Your task to perform on an android device: check android version Image 0: 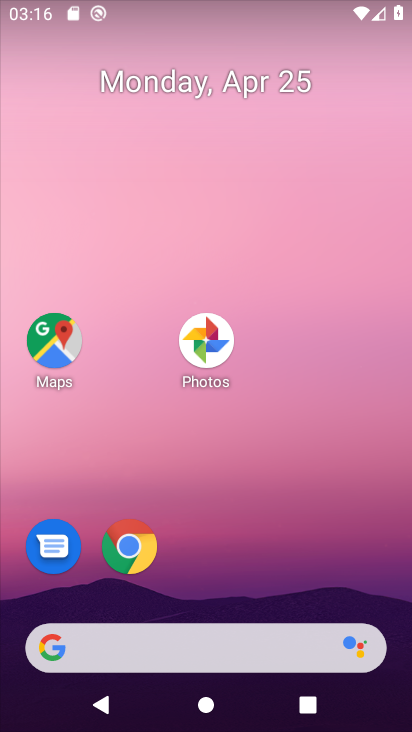
Step 0: drag from (262, 571) to (274, 155)
Your task to perform on an android device: check android version Image 1: 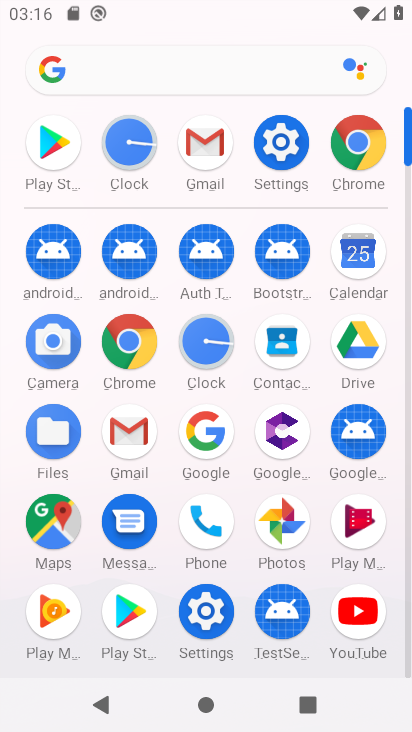
Step 1: click (278, 131)
Your task to perform on an android device: check android version Image 2: 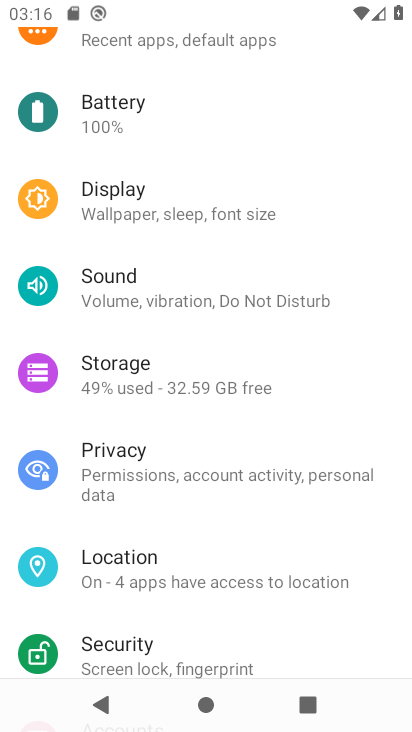
Step 2: drag from (219, 585) to (332, 94)
Your task to perform on an android device: check android version Image 3: 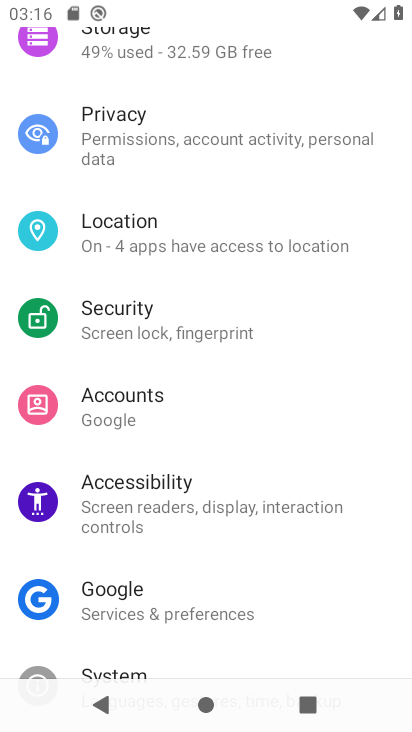
Step 3: drag from (184, 617) to (332, 148)
Your task to perform on an android device: check android version Image 4: 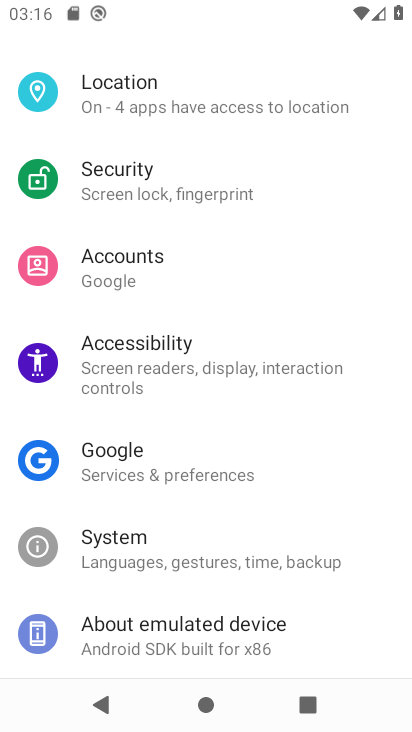
Step 4: click (193, 629)
Your task to perform on an android device: check android version Image 5: 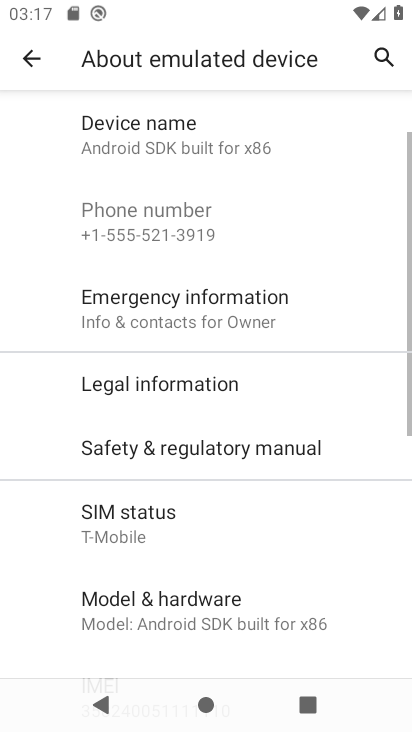
Step 5: drag from (210, 560) to (299, 132)
Your task to perform on an android device: check android version Image 6: 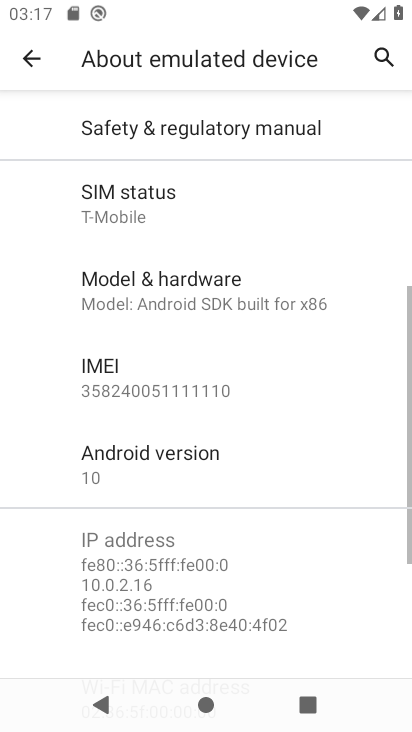
Step 6: click (151, 460)
Your task to perform on an android device: check android version Image 7: 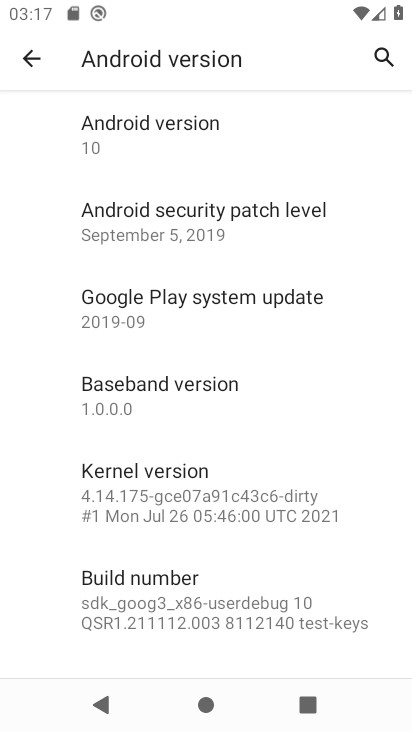
Step 7: task complete